Your task to perform on an android device: open app "Paramount+ | Peak Streaming" (install if not already installed) and enter user name: "fostered@yahoo.com" and password: "strong" Image 0: 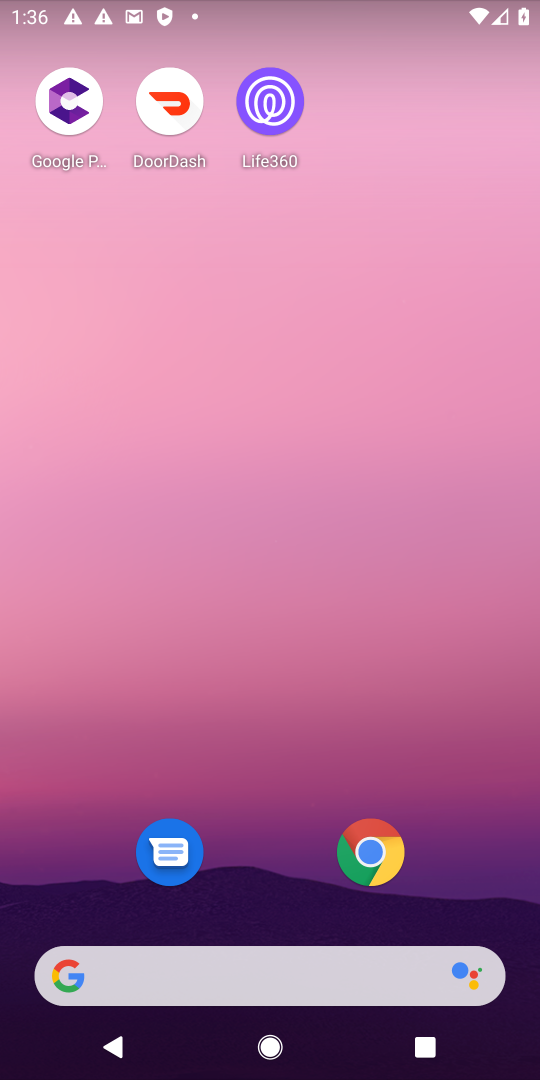
Step 0: drag from (266, 959) to (245, 96)
Your task to perform on an android device: open app "Paramount+ | Peak Streaming" (install if not already installed) and enter user name: "fostered@yahoo.com" and password: "strong" Image 1: 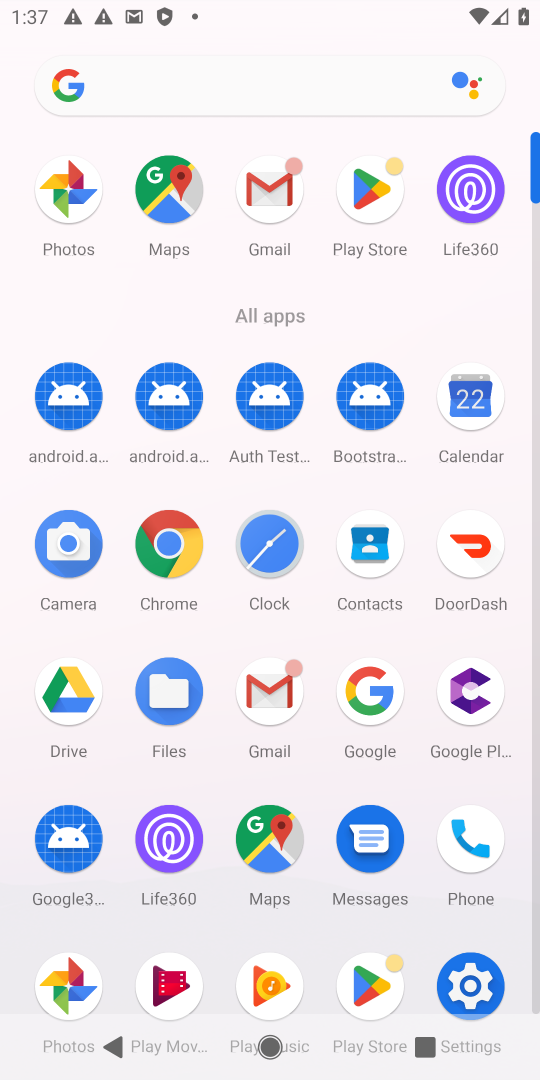
Step 1: click (381, 988)
Your task to perform on an android device: open app "Paramount+ | Peak Streaming" (install if not already installed) and enter user name: "fostered@yahoo.com" and password: "strong" Image 2: 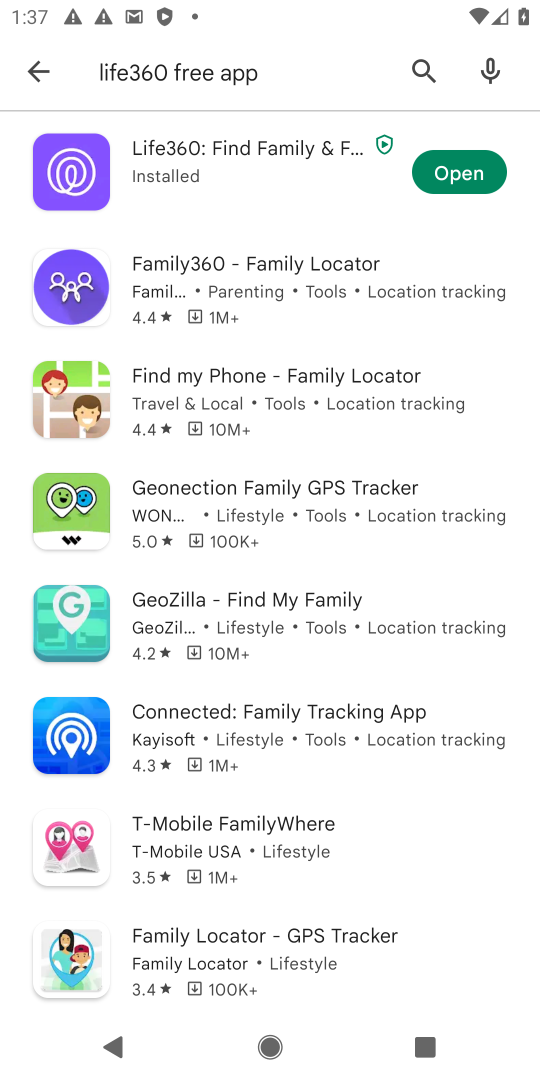
Step 2: click (410, 76)
Your task to perform on an android device: open app "Paramount+ | Peak Streaming" (install if not already installed) and enter user name: "fostered@yahoo.com" and password: "strong" Image 3: 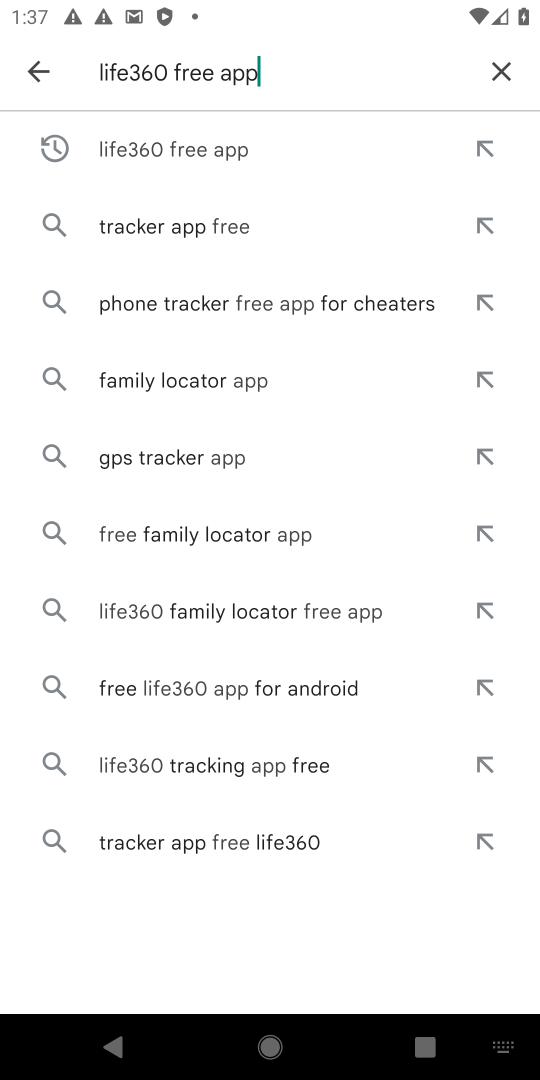
Step 3: click (500, 62)
Your task to perform on an android device: open app "Paramount+ | Peak Streaming" (install if not already installed) and enter user name: "fostered@yahoo.com" and password: "strong" Image 4: 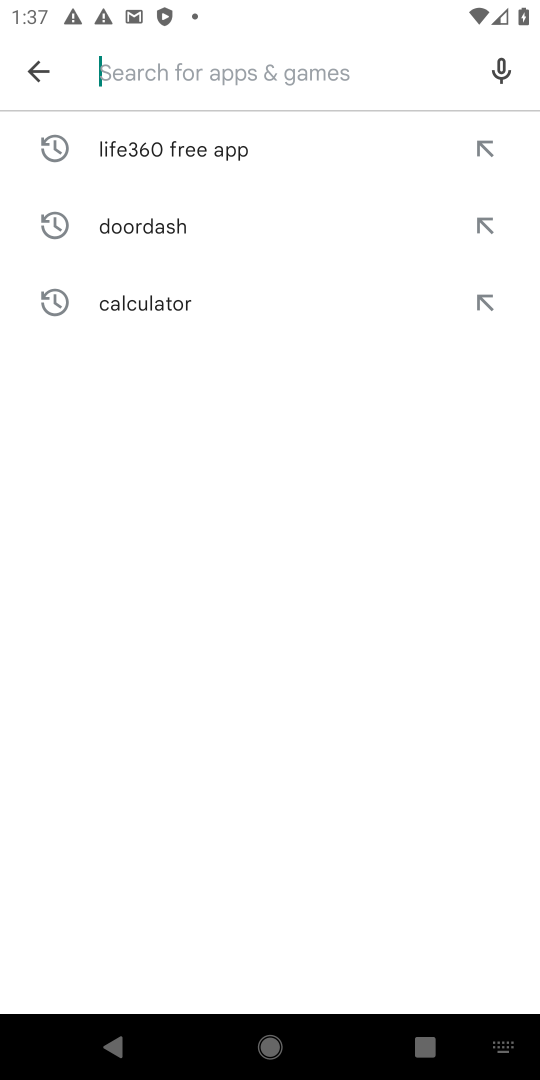
Step 4: type "paramount+"
Your task to perform on an android device: open app "Paramount+ | Peak Streaming" (install if not already installed) and enter user name: "fostered@yahoo.com" and password: "strong" Image 5: 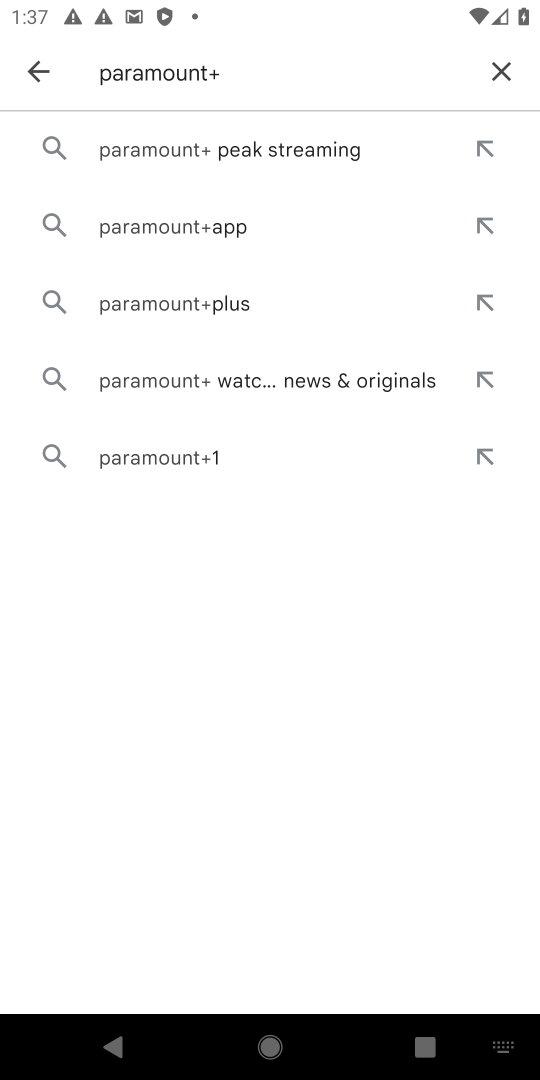
Step 5: click (216, 149)
Your task to perform on an android device: open app "Paramount+ | Peak Streaming" (install if not already installed) and enter user name: "fostered@yahoo.com" and password: "strong" Image 6: 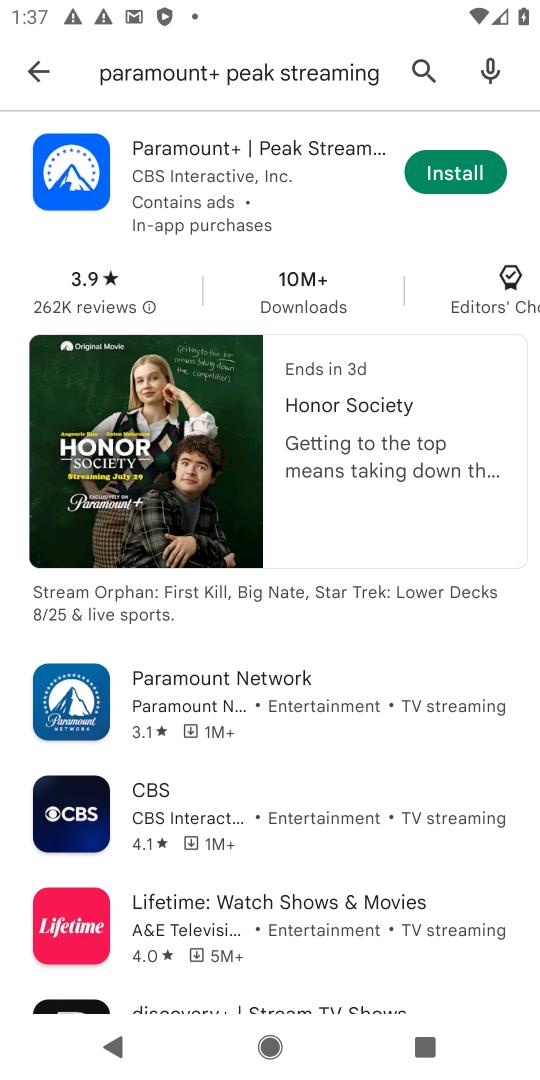
Step 6: click (458, 196)
Your task to perform on an android device: open app "Paramount+ | Peak Streaming" (install if not already installed) and enter user name: "fostered@yahoo.com" and password: "strong" Image 7: 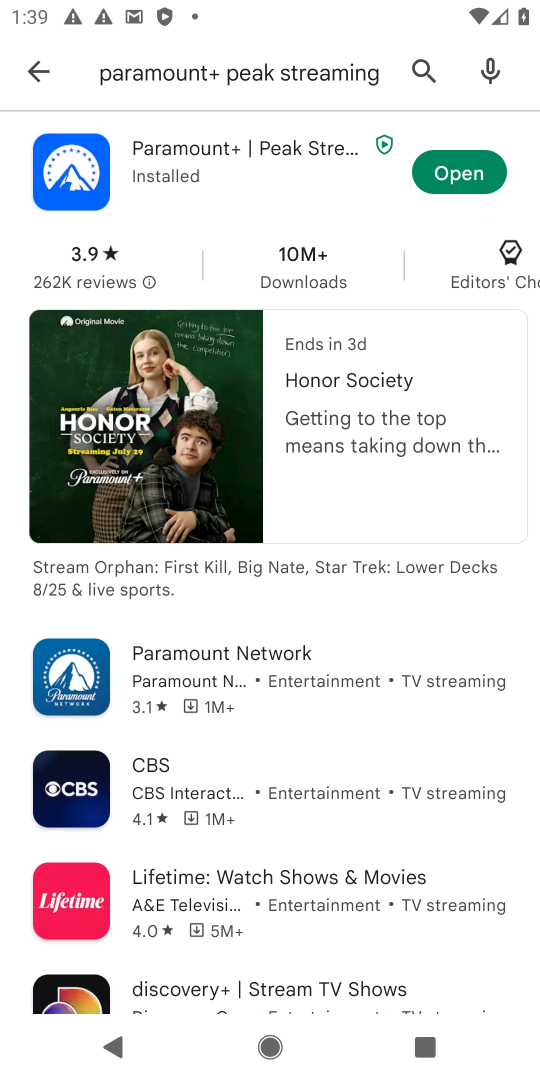
Step 7: click (444, 158)
Your task to perform on an android device: open app "Paramount+ | Peak Streaming" (install if not already installed) and enter user name: "fostered@yahoo.com" and password: "strong" Image 8: 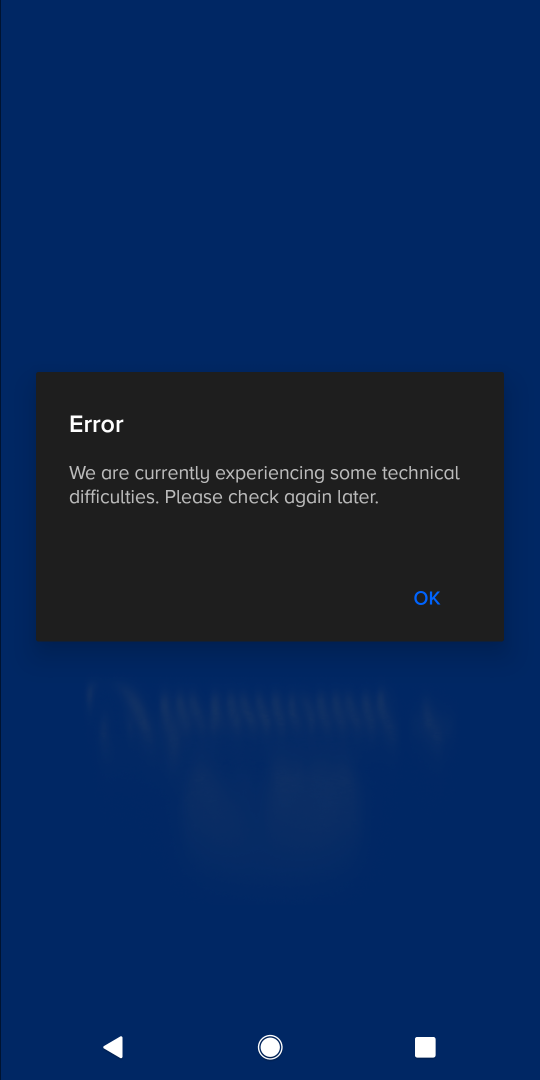
Step 8: task complete